Your task to perform on an android device: check battery use Image 0: 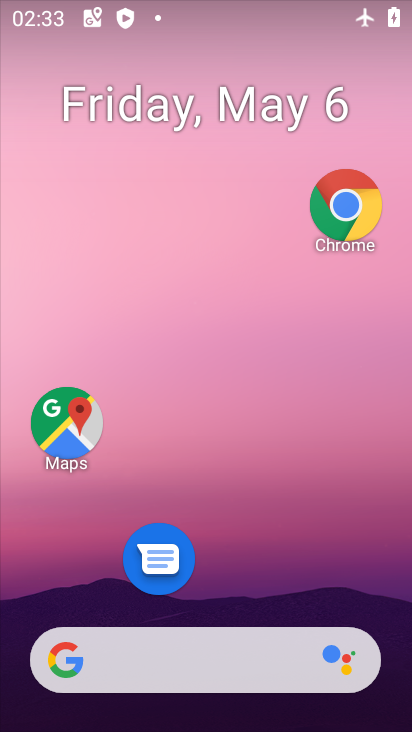
Step 0: drag from (262, 473) to (356, 57)
Your task to perform on an android device: check battery use Image 1: 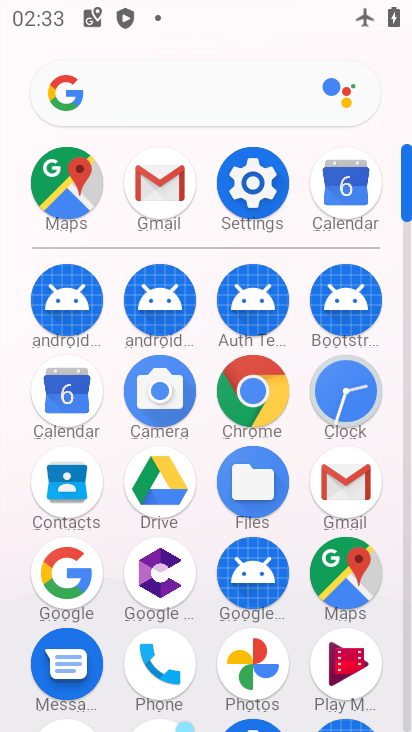
Step 1: click (245, 194)
Your task to perform on an android device: check battery use Image 2: 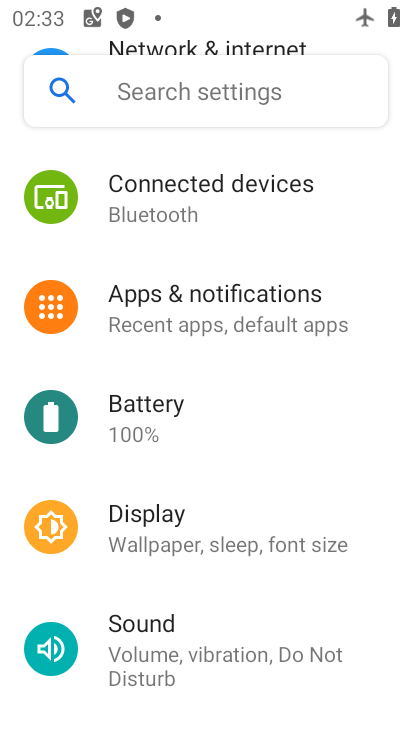
Step 2: click (146, 410)
Your task to perform on an android device: check battery use Image 3: 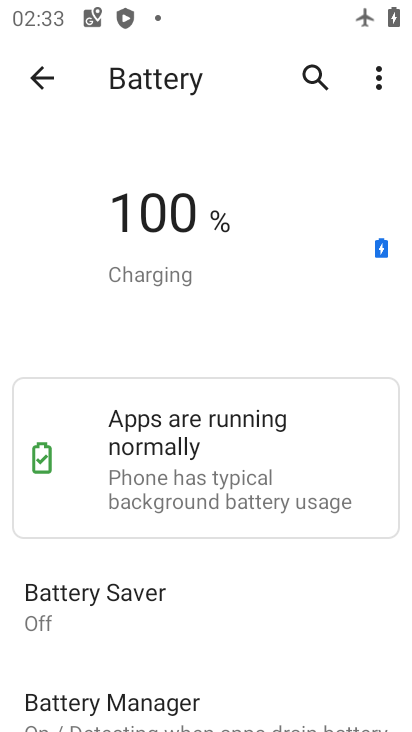
Step 3: click (376, 75)
Your task to perform on an android device: check battery use Image 4: 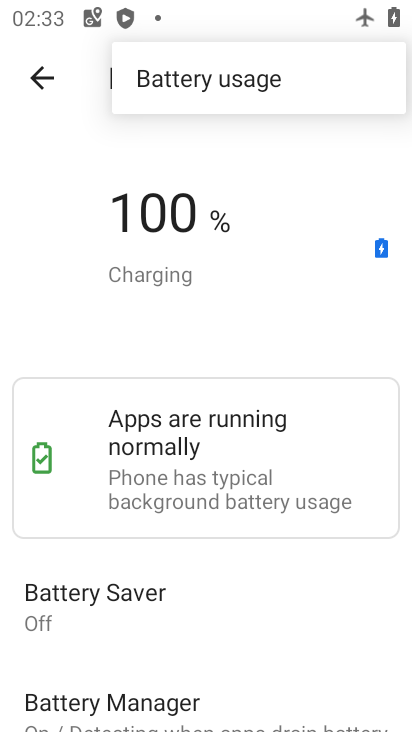
Step 4: click (266, 86)
Your task to perform on an android device: check battery use Image 5: 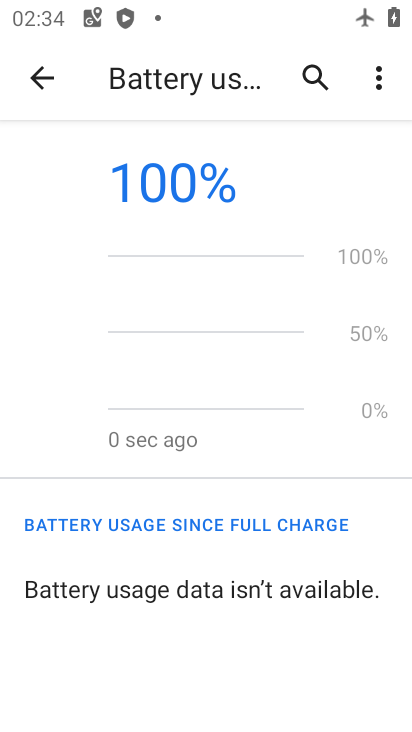
Step 5: task complete